Your task to perform on an android device: Open privacy settings Image 0: 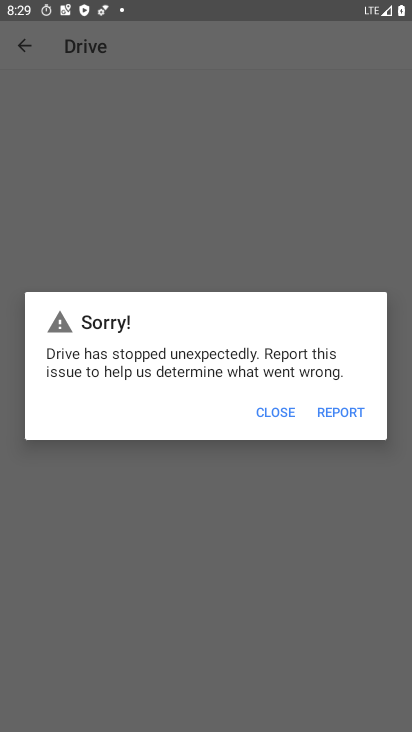
Step 0: press home button
Your task to perform on an android device: Open privacy settings Image 1: 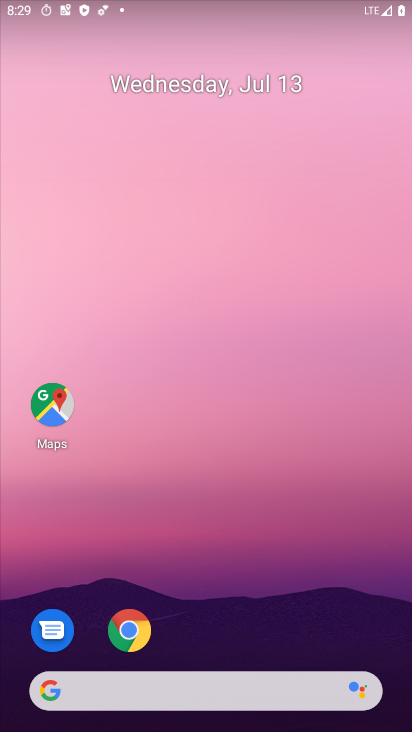
Step 1: drag from (346, 601) to (312, 121)
Your task to perform on an android device: Open privacy settings Image 2: 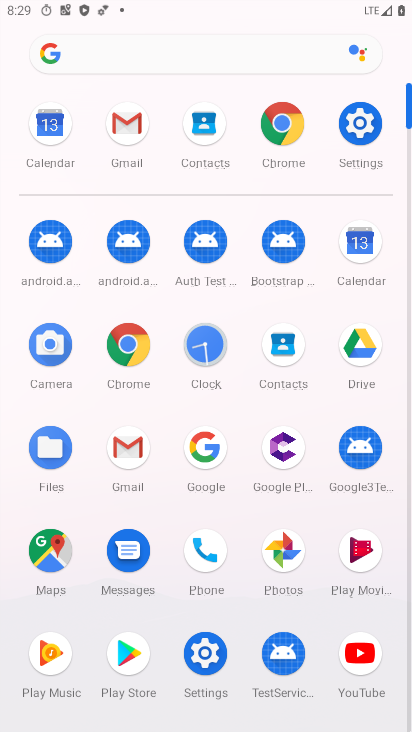
Step 2: click (355, 134)
Your task to perform on an android device: Open privacy settings Image 3: 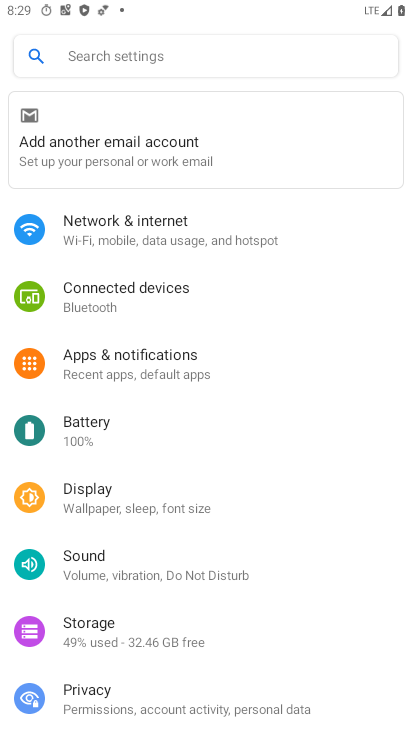
Step 3: drag from (336, 466) to (340, 362)
Your task to perform on an android device: Open privacy settings Image 4: 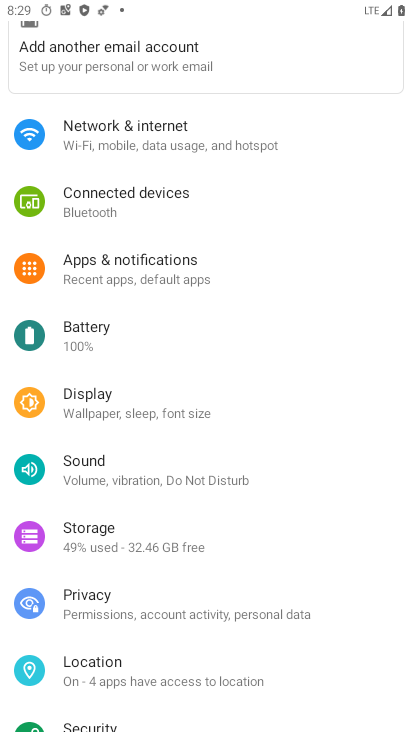
Step 4: drag from (345, 511) to (338, 390)
Your task to perform on an android device: Open privacy settings Image 5: 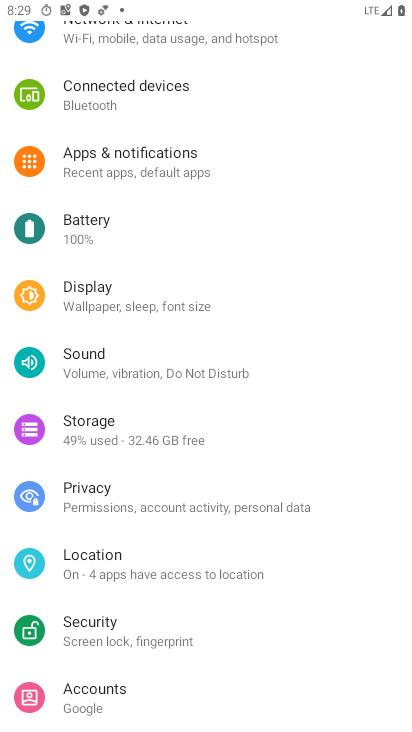
Step 5: drag from (341, 549) to (334, 350)
Your task to perform on an android device: Open privacy settings Image 6: 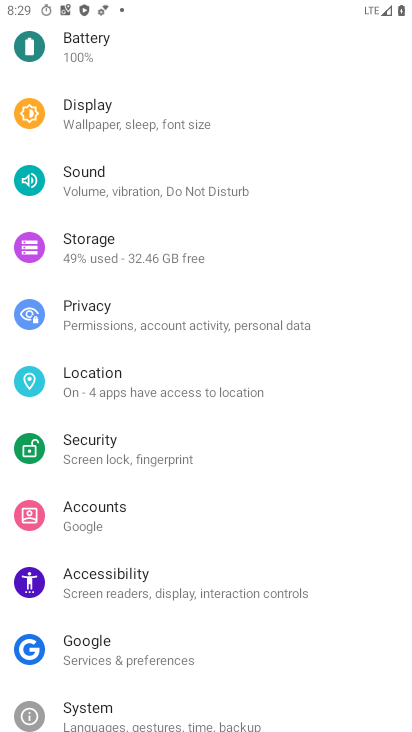
Step 6: drag from (355, 544) to (360, 427)
Your task to perform on an android device: Open privacy settings Image 7: 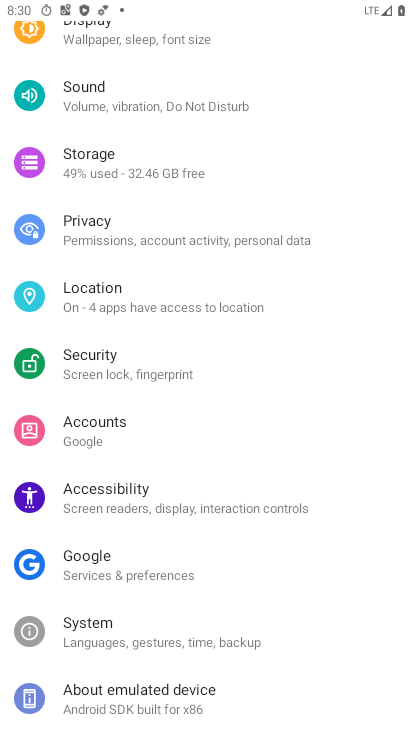
Step 7: drag from (360, 362) to (363, 417)
Your task to perform on an android device: Open privacy settings Image 8: 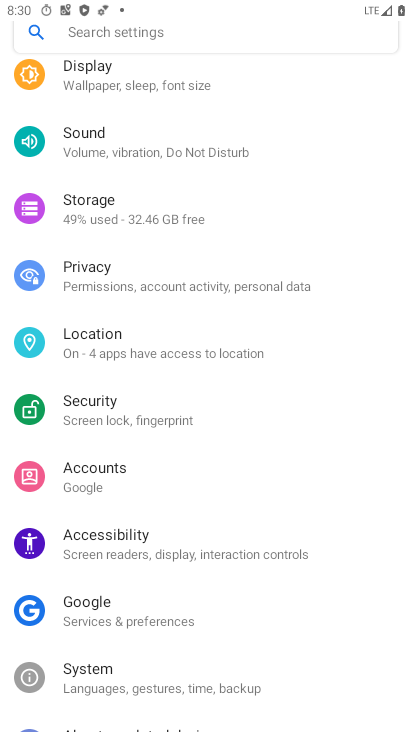
Step 8: drag from (363, 349) to (362, 429)
Your task to perform on an android device: Open privacy settings Image 9: 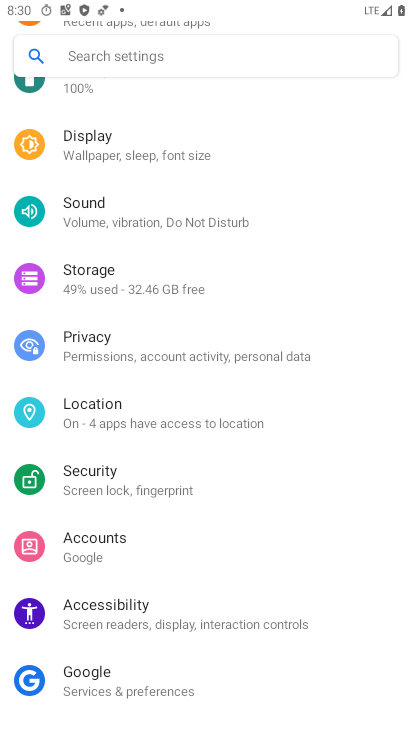
Step 9: drag from (361, 366) to (362, 444)
Your task to perform on an android device: Open privacy settings Image 10: 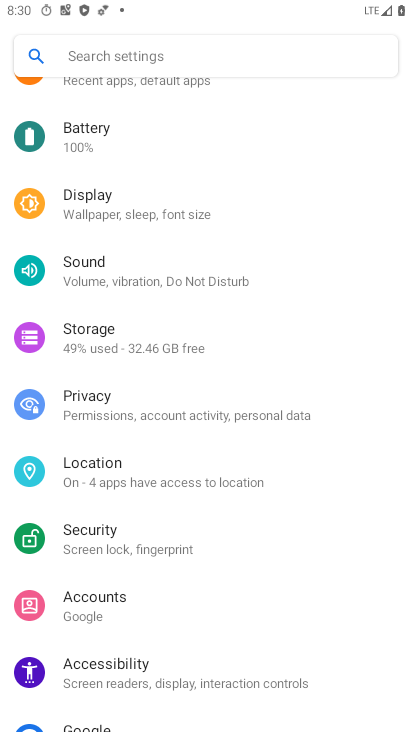
Step 10: drag from (364, 372) to (363, 451)
Your task to perform on an android device: Open privacy settings Image 11: 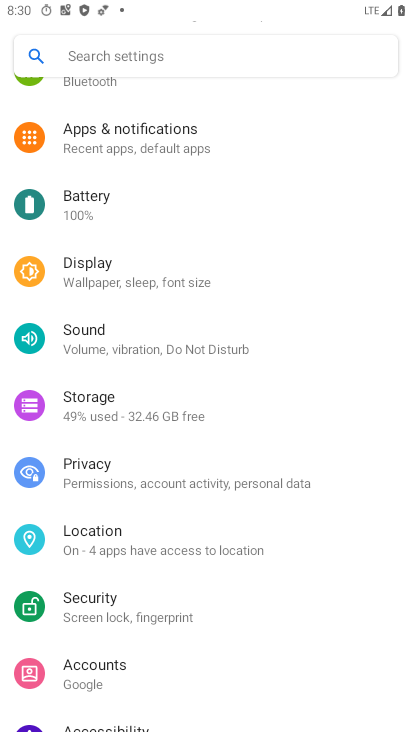
Step 11: drag from (367, 387) to (365, 483)
Your task to perform on an android device: Open privacy settings Image 12: 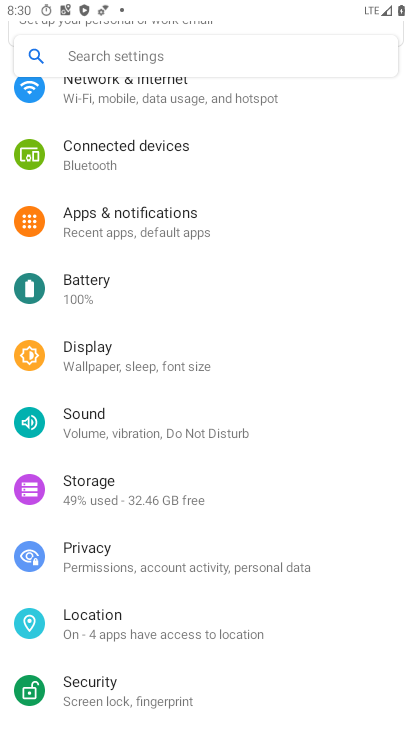
Step 12: click (299, 584)
Your task to perform on an android device: Open privacy settings Image 13: 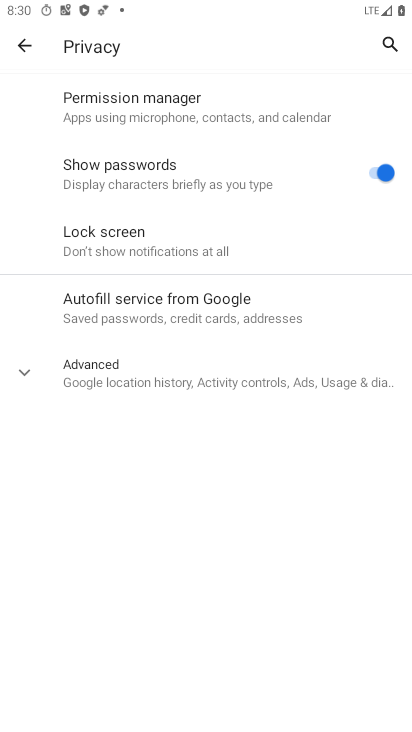
Step 13: task complete